Your task to perform on an android device: Set the phone to "Do not disturb". Image 0: 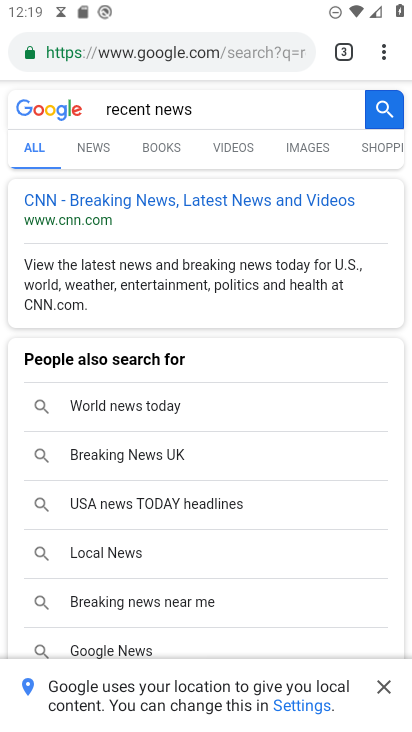
Step 0: press home button
Your task to perform on an android device: Set the phone to "Do not disturb". Image 1: 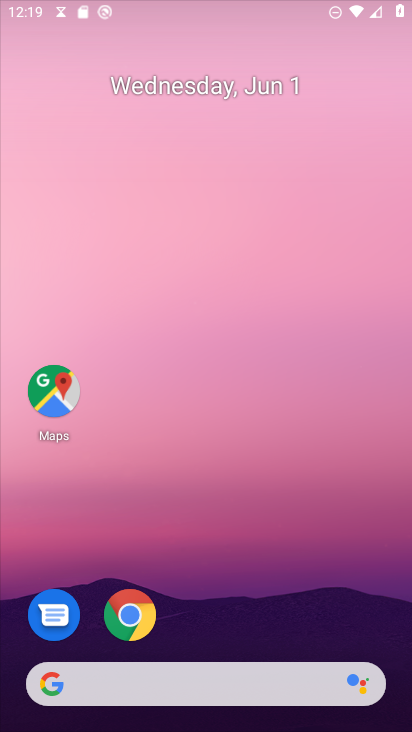
Step 1: drag from (276, 655) to (291, 95)
Your task to perform on an android device: Set the phone to "Do not disturb". Image 2: 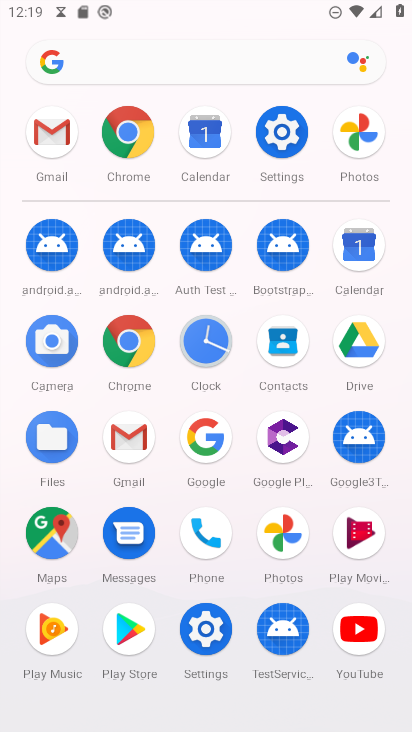
Step 2: click (281, 140)
Your task to perform on an android device: Set the phone to "Do not disturb". Image 3: 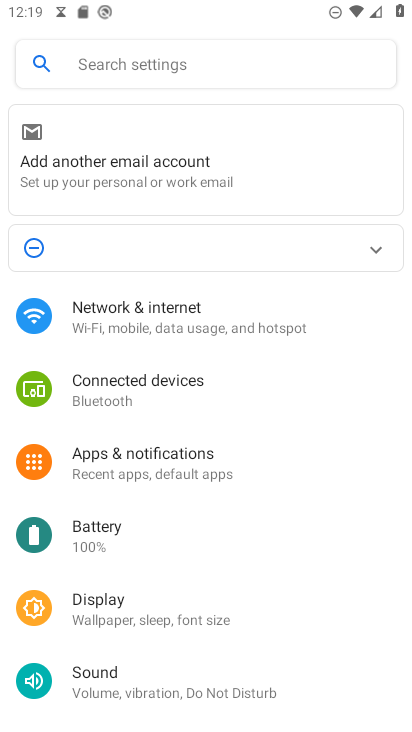
Step 3: click (131, 668)
Your task to perform on an android device: Set the phone to "Do not disturb". Image 4: 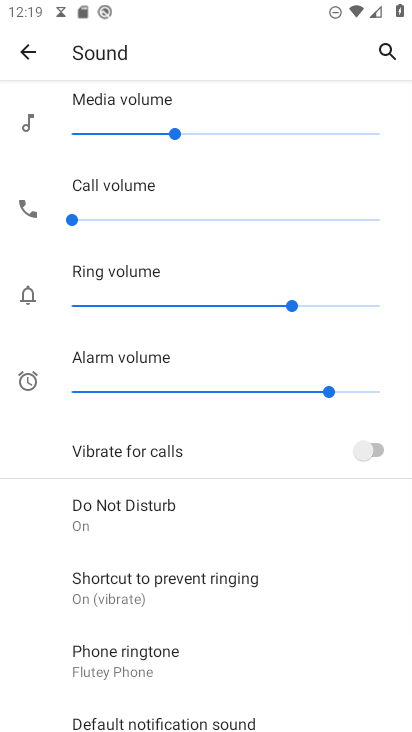
Step 4: click (169, 527)
Your task to perform on an android device: Set the phone to "Do not disturb". Image 5: 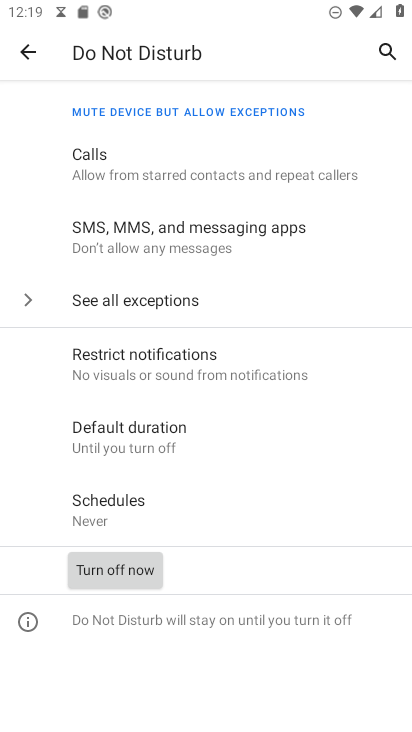
Step 5: task complete